Your task to perform on an android device: change your default location settings in chrome Image 0: 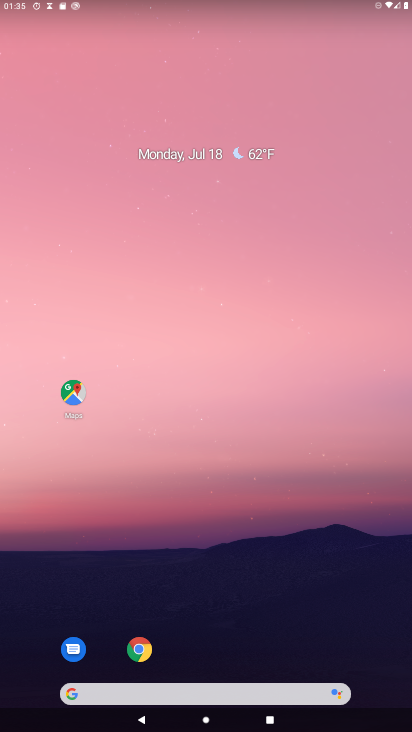
Step 0: drag from (49, 672) to (154, 376)
Your task to perform on an android device: change your default location settings in chrome Image 1: 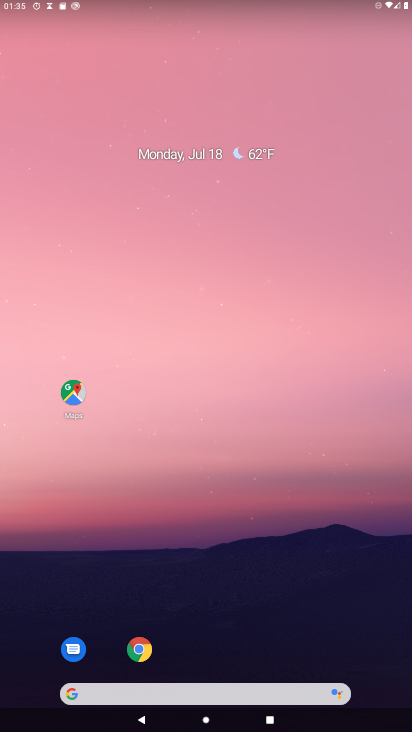
Step 1: click (145, 646)
Your task to perform on an android device: change your default location settings in chrome Image 2: 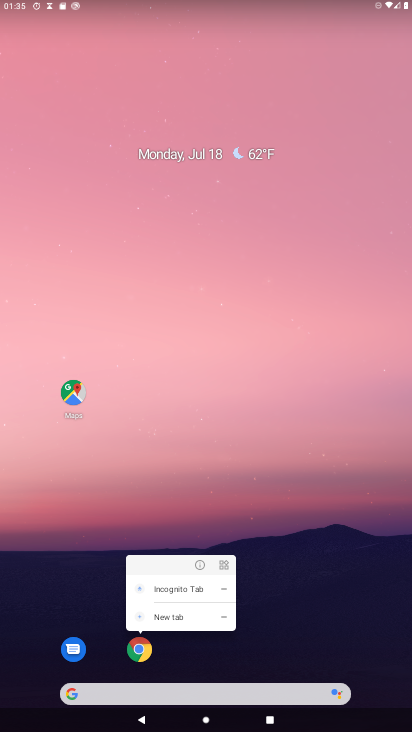
Step 2: click (144, 647)
Your task to perform on an android device: change your default location settings in chrome Image 3: 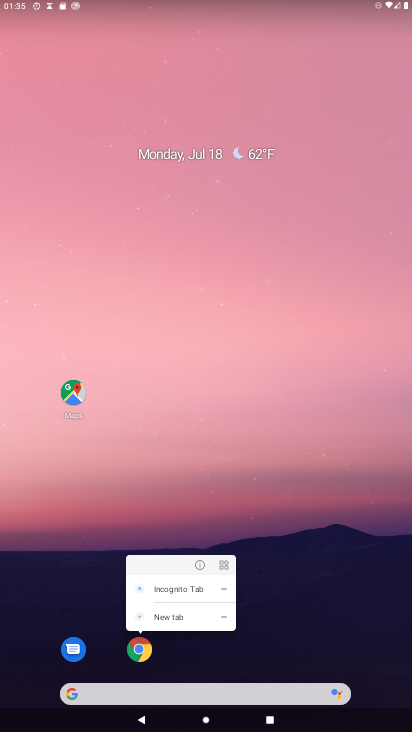
Step 3: click (159, 656)
Your task to perform on an android device: change your default location settings in chrome Image 4: 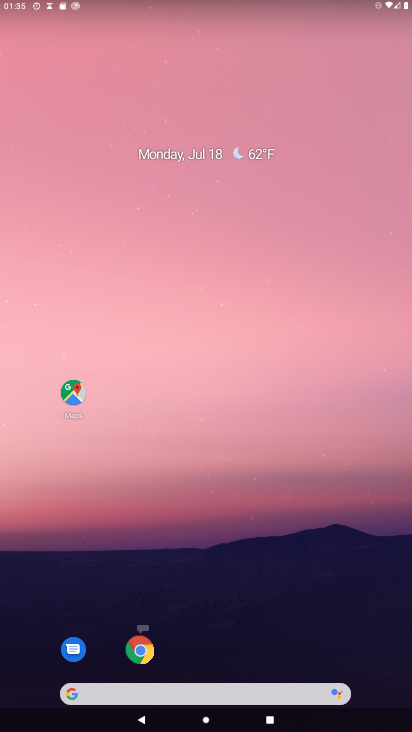
Step 4: click (131, 650)
Your task to perform on an android device: change your default location settings in chrome Image 5: 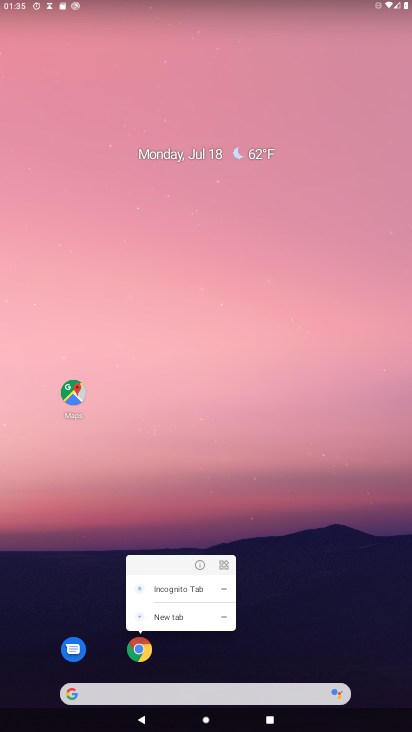
Step 5: click (150, 644)
Your task to perform on an android device: change your default location settings in chrome Image 6: 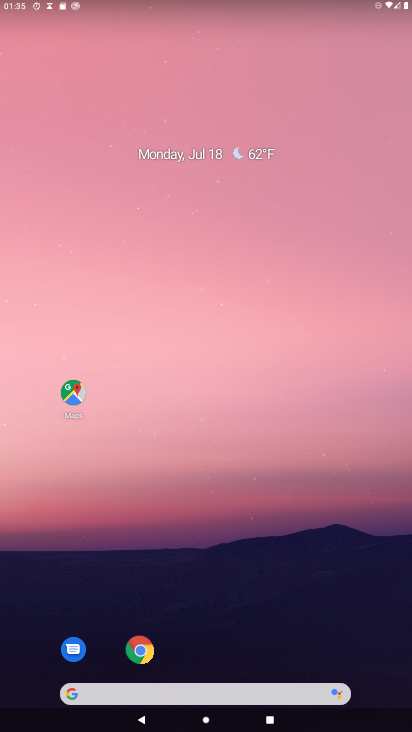
Step 6: click (150, 644)
Your task to perform on an android device: change your default location settings in chrome Image 7: 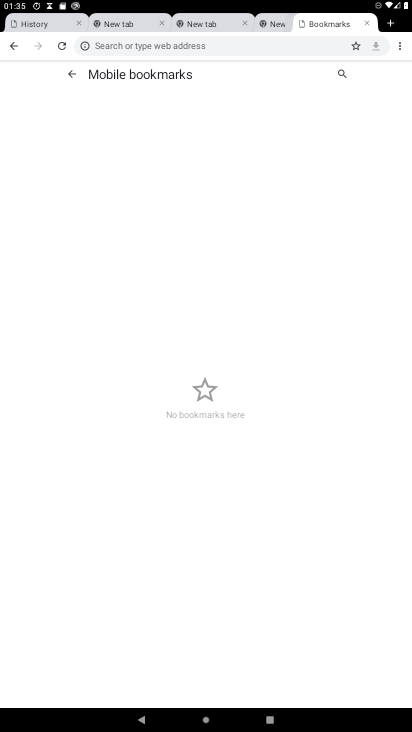
Step 7: click (401, 49)
Your task to perform on an android device: change your default location settings in chrome Image 8: 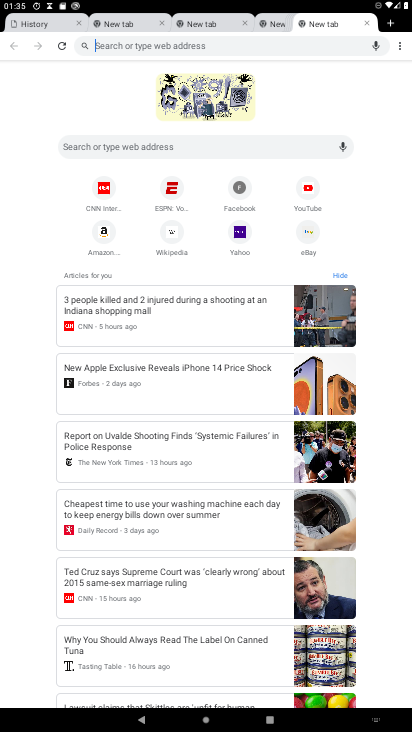
Step 8: click (407, 48)
Your task to perform on an android device: change your default location settings in chrome Image 9: 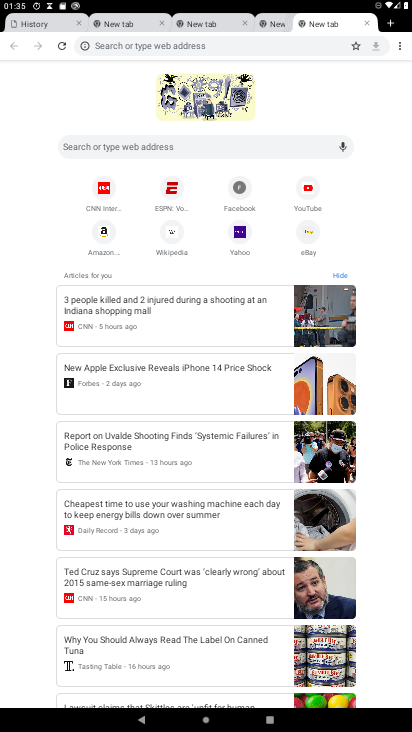
Step 9: click (392, 39)
Your task to perform on an android device: change your default location settings in chrome Image 10: 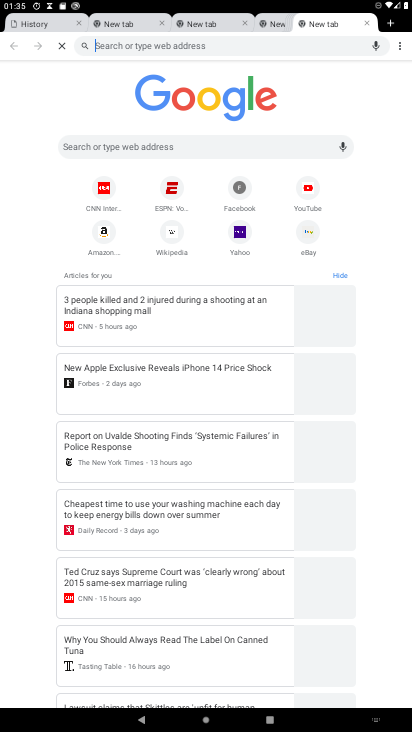
Step 10: click (398, 44)
Your task to perform on an android device: change your default location settings in chrome Image 11: 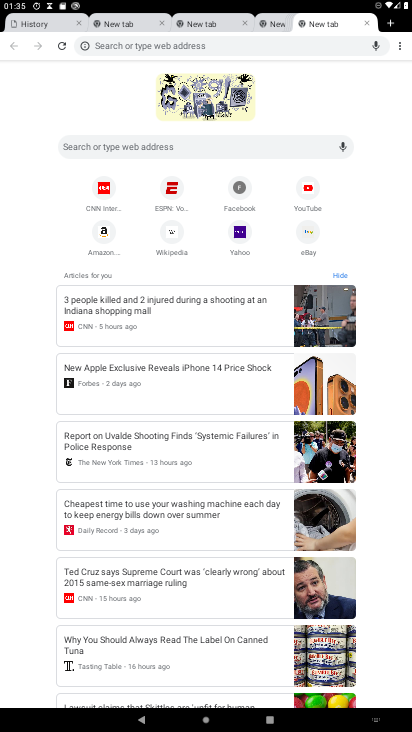
Step 11: task complete